Your task to perform on an android device: Search for coffee table on Crate & Barrel Image 0: 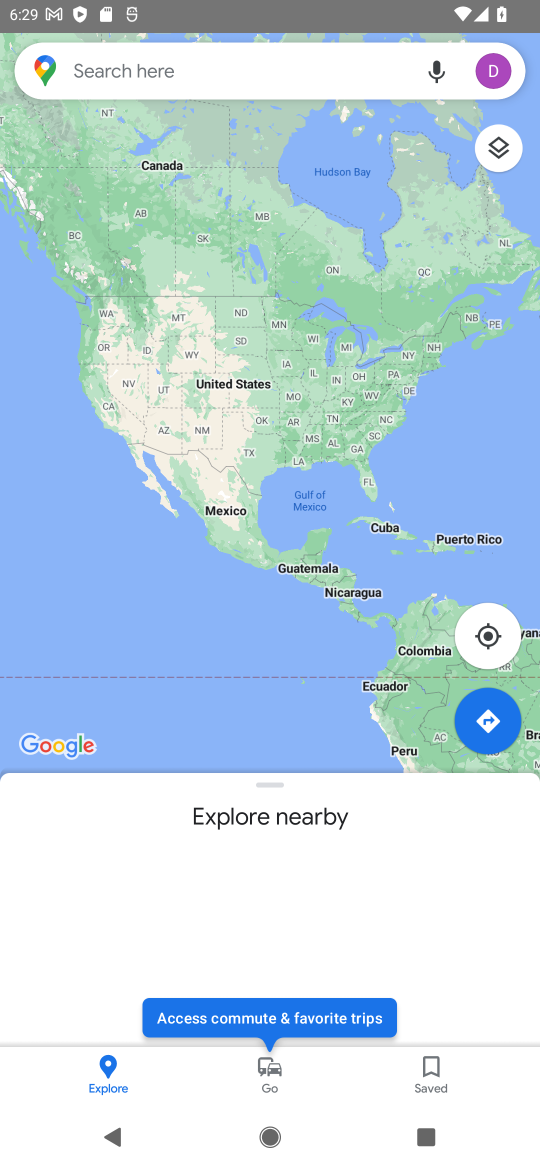
Step 0: press home button
Your task to perform on an android device: Search for coffee table on Crate & Barrel Image 1: 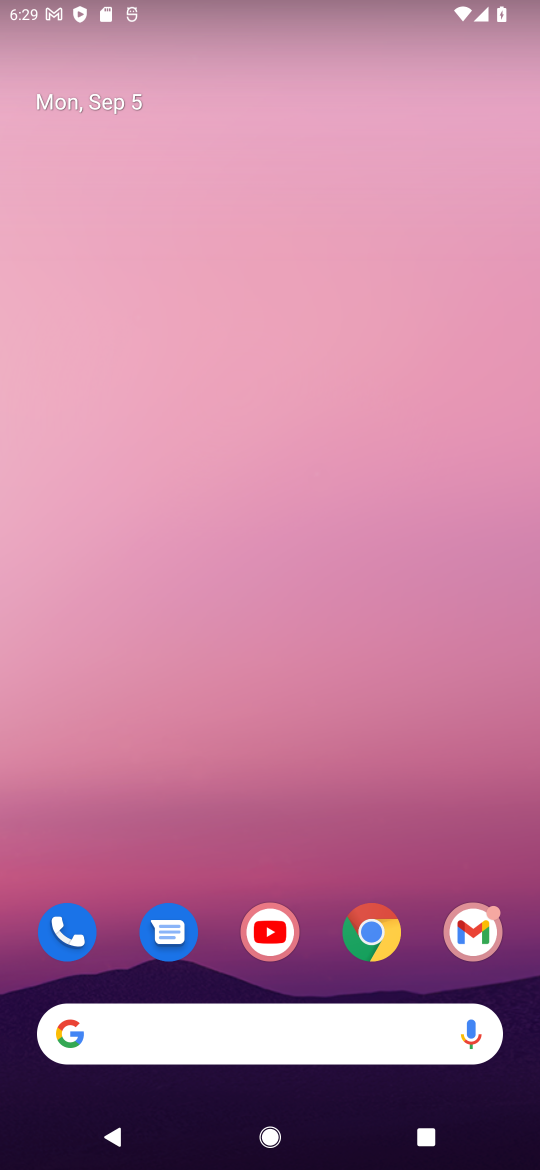
Step 1: drag from (319, 995) to (393, 0)
Your task to perform on an android device: Search for coffee table on Crate & Barrel Image 2: 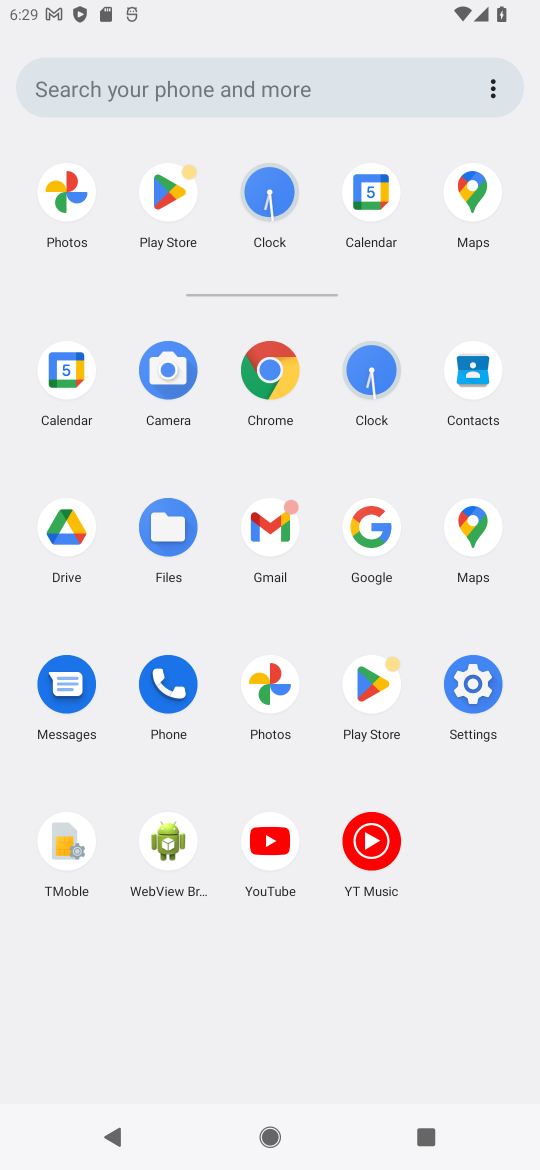
Step 2: click (370, 523)
Your task to perform on an android device: Search for coffee table on Crate & Barrel Image 3: 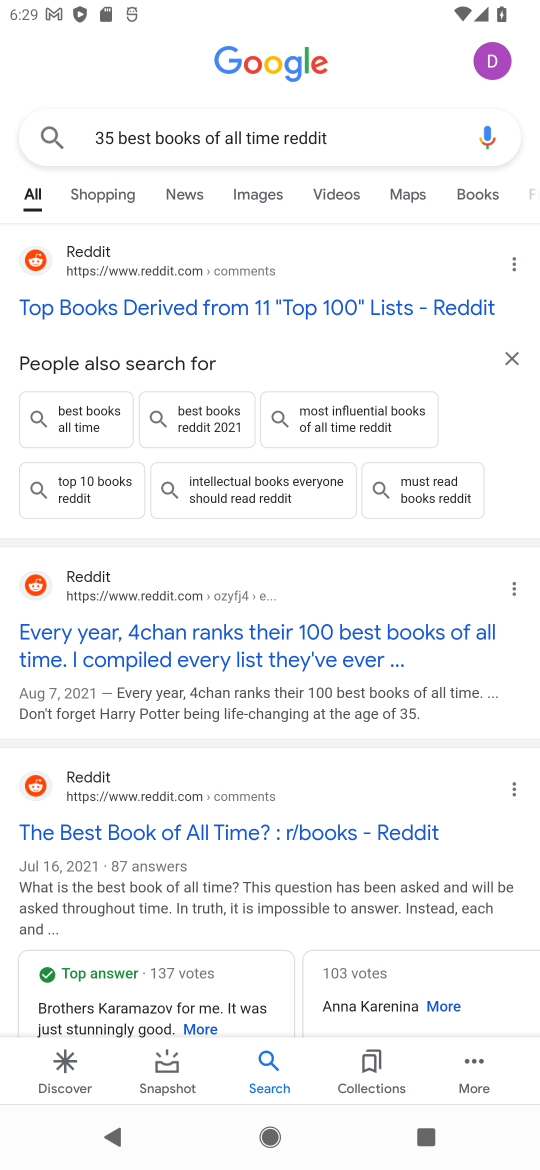
Step 3: click (381, 138)
Your task to perform on an android device: Search for coffee table on Crate & Barrel Image 4: 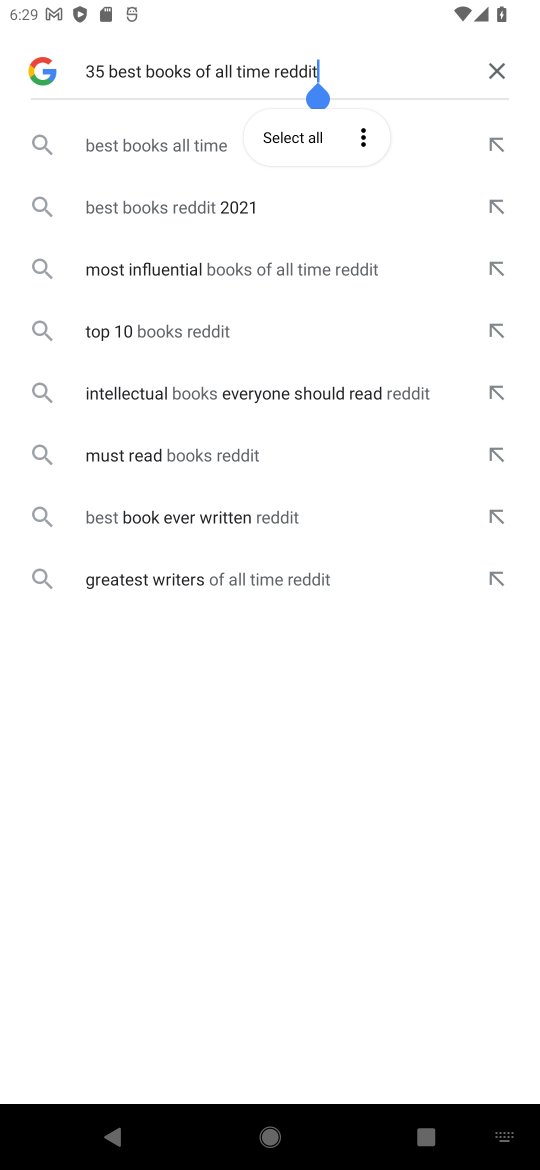
Step 4: click (494, 70)
Your task to perform on an android device: Search for coffee table on Crate & Barrel Image 5: 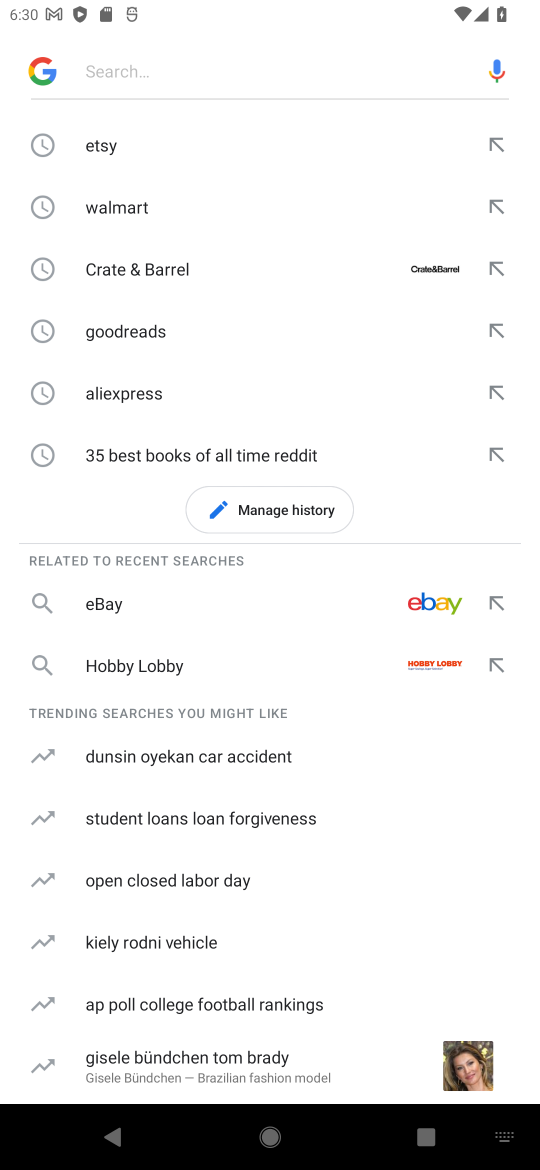
Step 5: type " Crate & Barrel"
Your task to perform on an android device: Search for coffee table on Crate & Barrel Image 6: 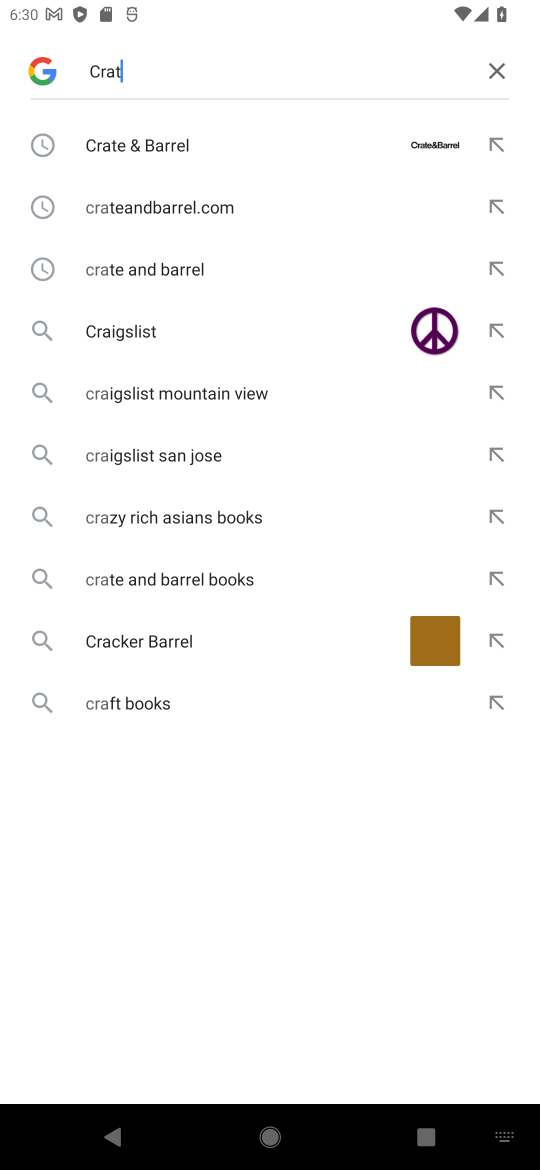
Step 6: type ""
Your task to perform on an android device: Search for coffee table on Crate & Barrel Image 7: 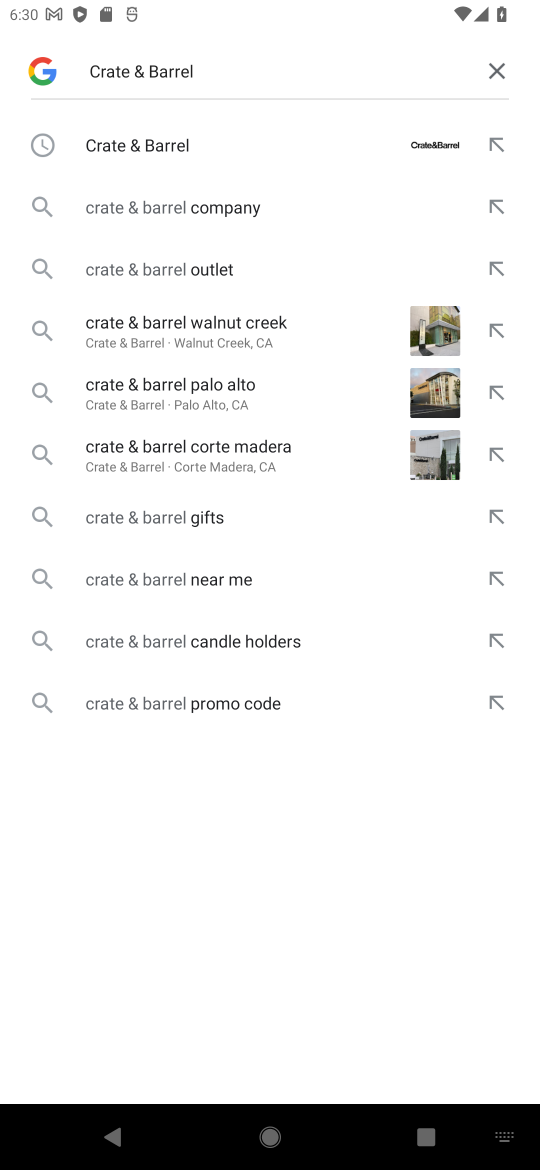
Step 7: click (157, 143)
Your task to perform on an android device: Search for coffee table on Crate & Barrel Image 8: 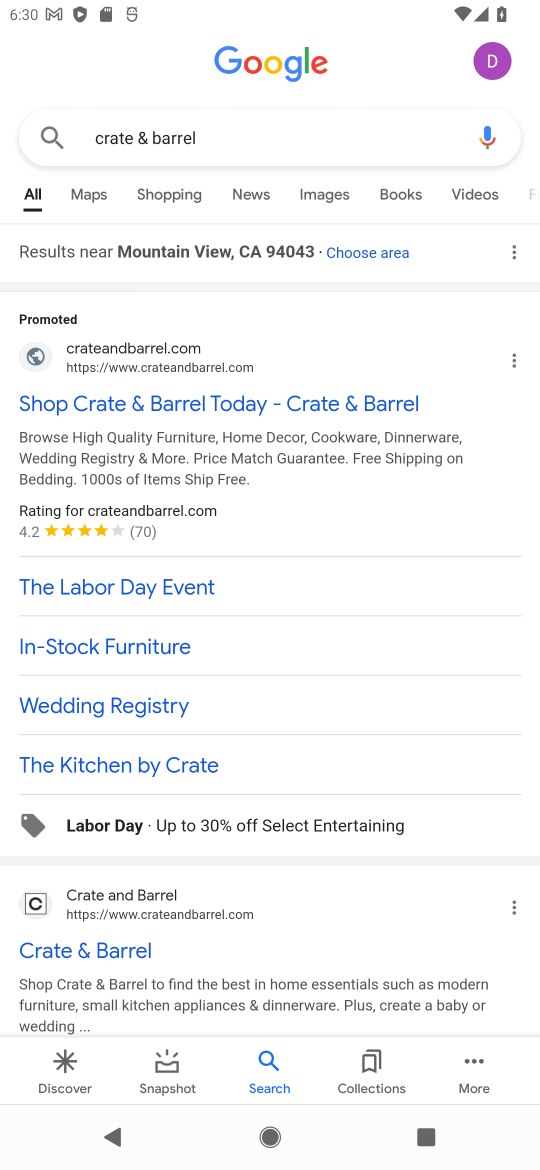
Step 8: click (162, 402)
Your task to perform on an android device: Search for coffee table on Crate & Barrel Image 9: 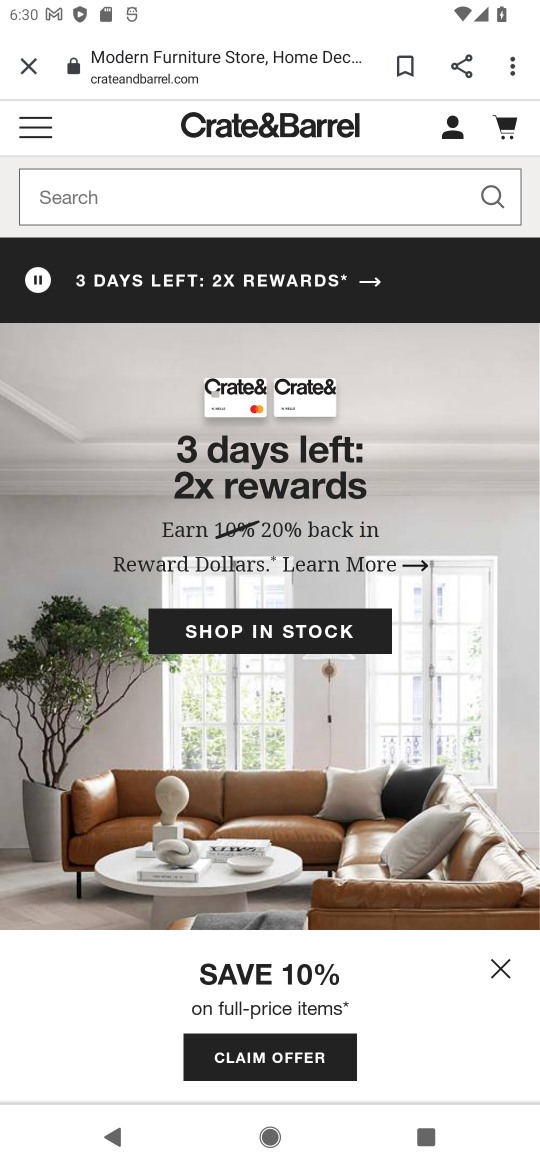
Step 9: click (173, 206)
Your task to perform on an android device: Search for coffee table on Crate & Barrel Image 10: 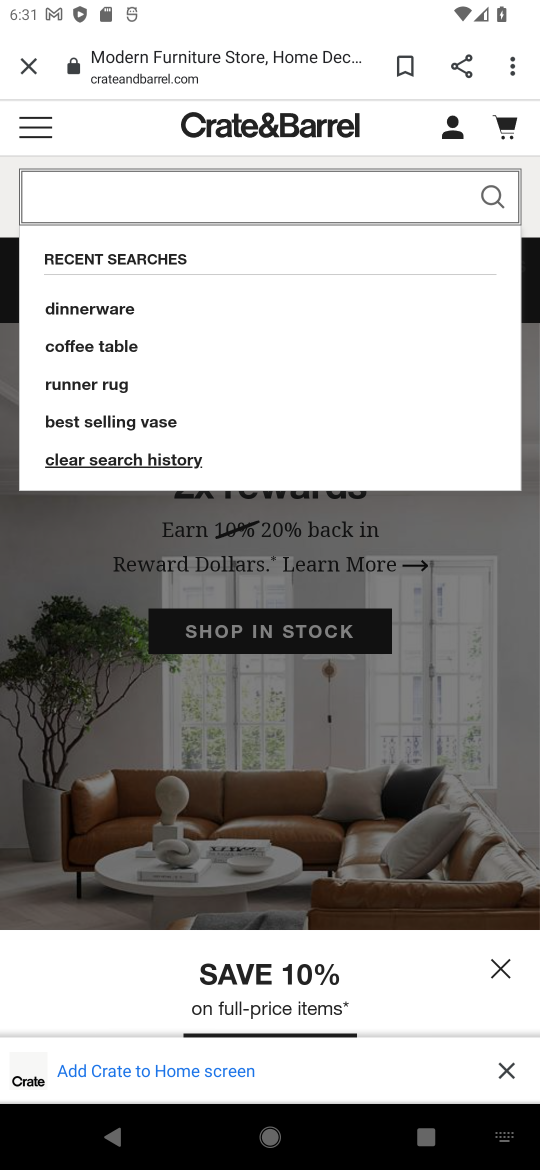
Step 10: type "coffee table"
Your task to perform on an android device: Search for coffee table on Crate & Barrel Image 11: 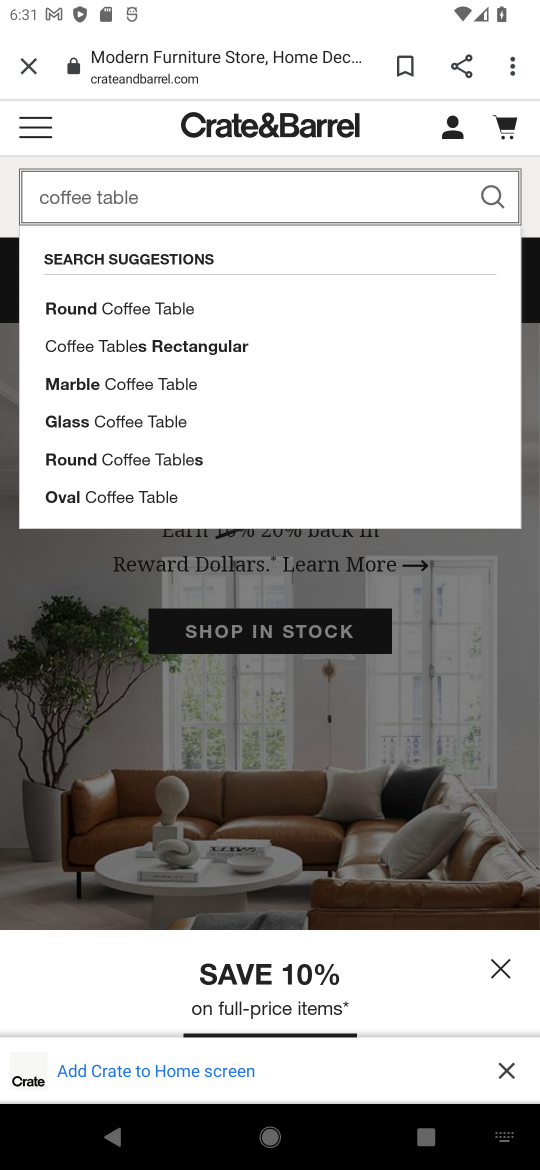
Step 11: click (486, 191)
Your task to perform on an android device: Search for coffee table on Crate & Barrel Image 12: 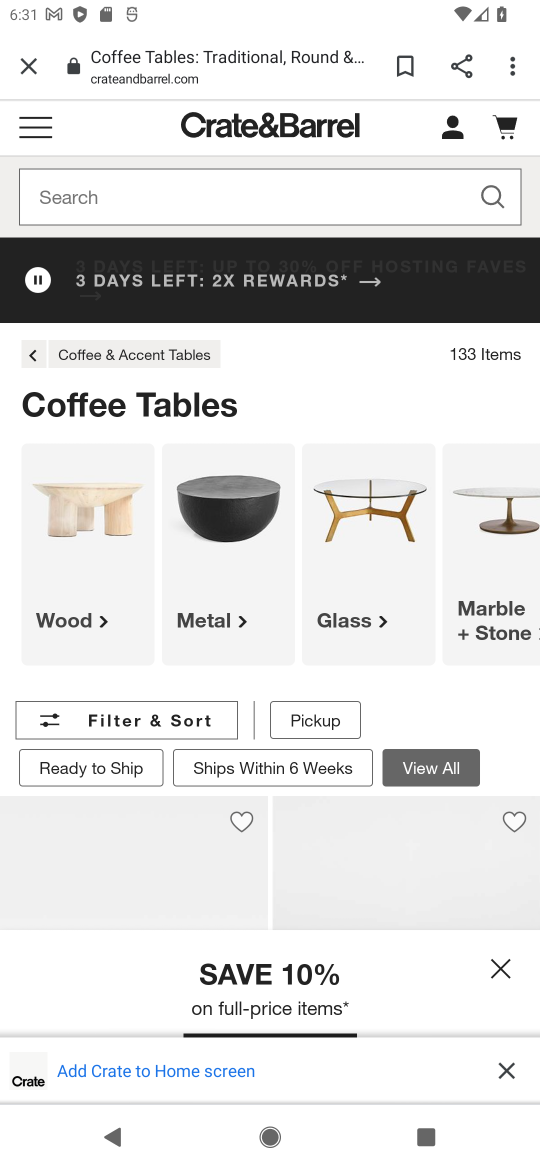
Step 12: task complete